Your task to perform on an android device: Find coffee shops on Maps Image 0: 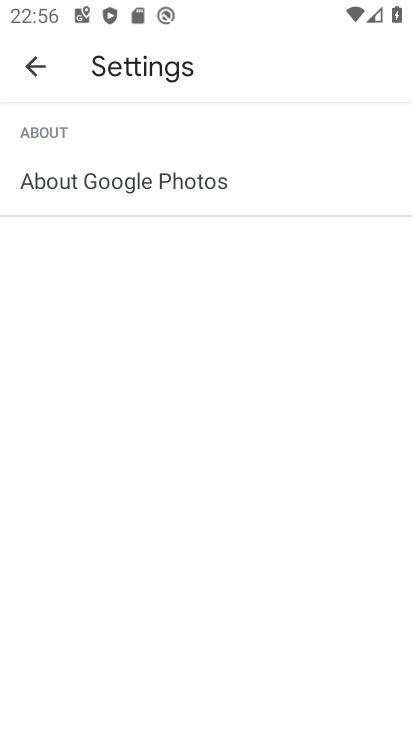
Step 0: press home button
Your task to perform on an android device: Find coffee shops on Maps Image 1: 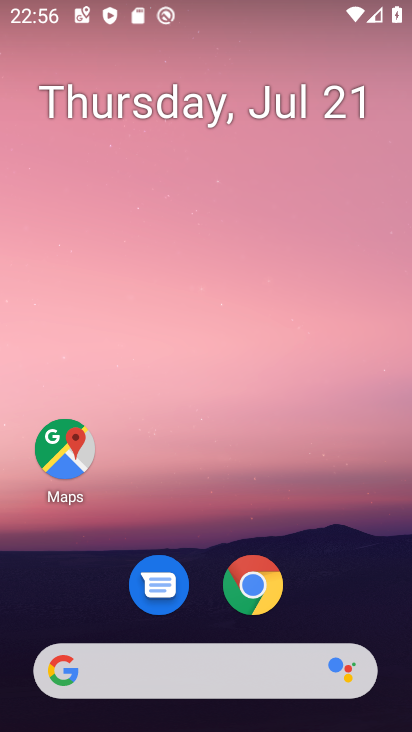
Step 1: click (67, 452)
Your task to perform on an android device: Find coffee shops on Maps Image 2: 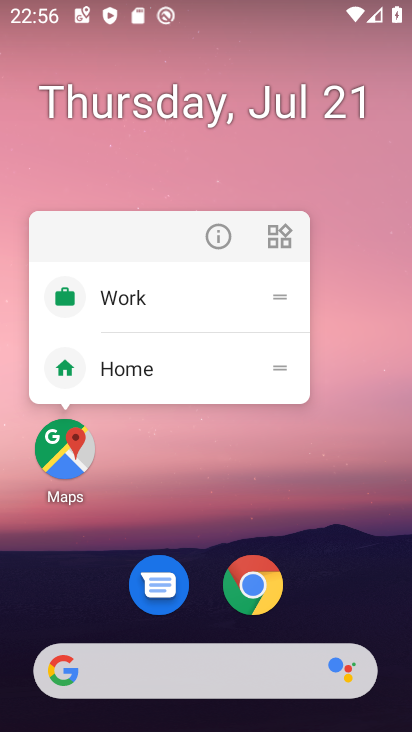
Step 2: click (59, 460)
Your task to perform on an android device: Find coffee shops on Maps Image 3: 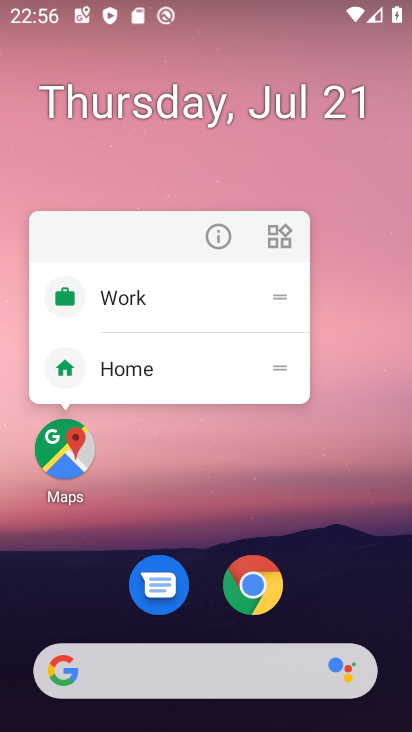
Step 3: click (60, 454)
Your task to perform on an android device: Find coffee shops on Maps Image 4: 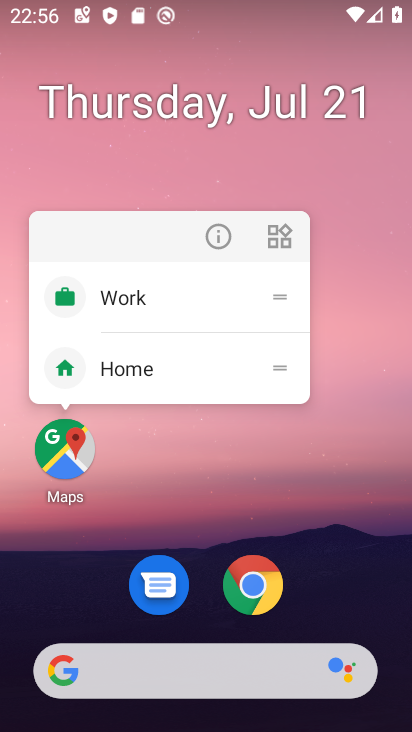
Step 4: click (65, 446)
Your task to perform on an android device: Find coffee shops on Maps Image 5: 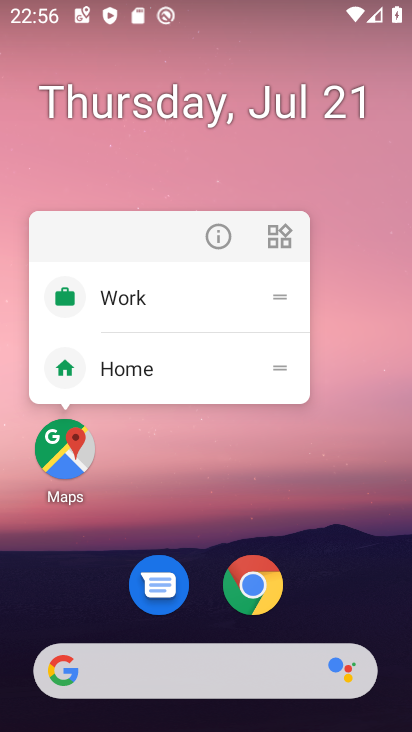
Step 5: click (65, 447)
Your task to perform on an android device: Find coffee shops on Maps Image 6: 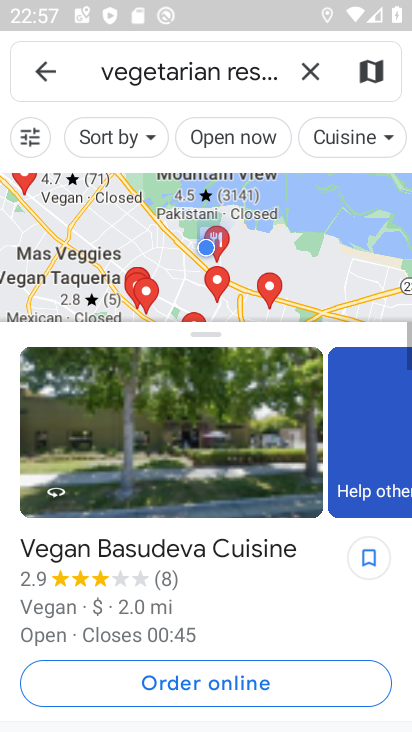
Step 6: click (307, 69)
Your task to perform on an android device: Find coffee shops on Maps Image 7: 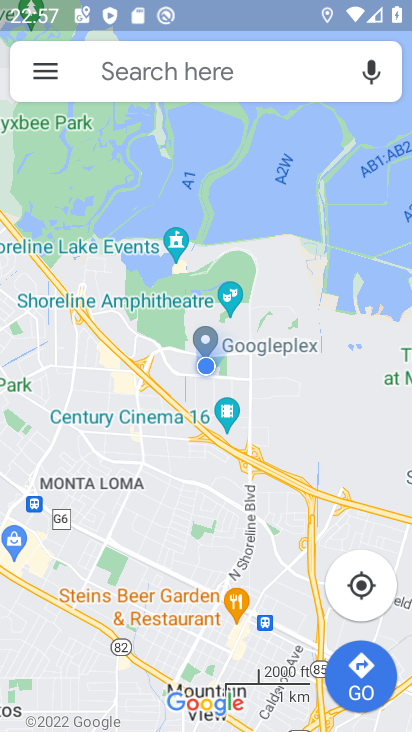
Step 7: click (207, 74)
Your task to perform on an android device: Find coffee shops on Maps Image 8: 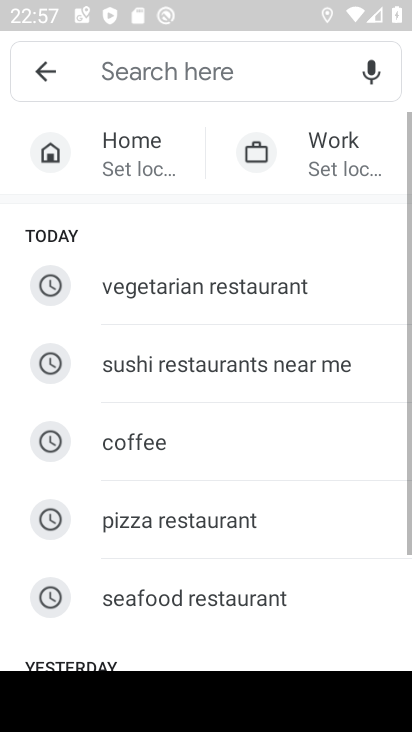
Step 8: click (175, 444)
Your task to perform on an android device: Find coffee shops on Maps Image 9: 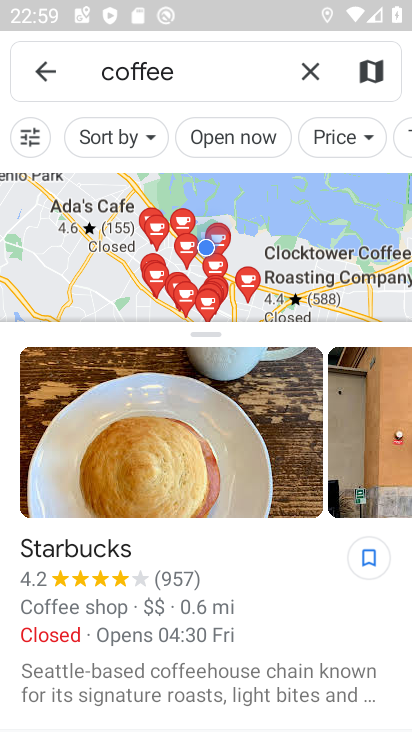
Step 9: task complete